Your task to perform on an android device: turn pop-ups on in chrome Image 0: 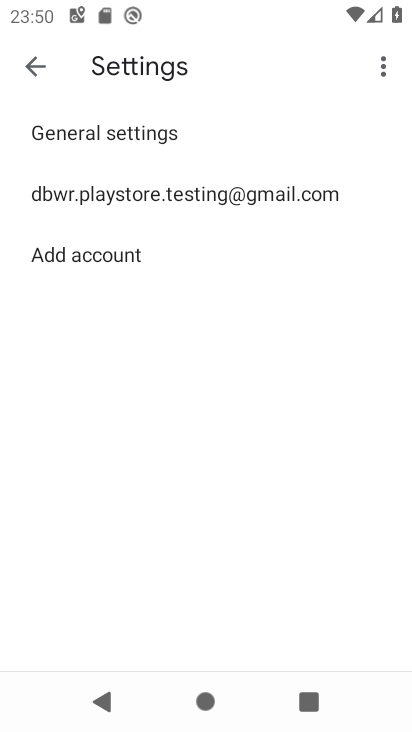
Step 0: press home button
Your task to perform on an android device: turn pop-ups on in chrome Image 1: 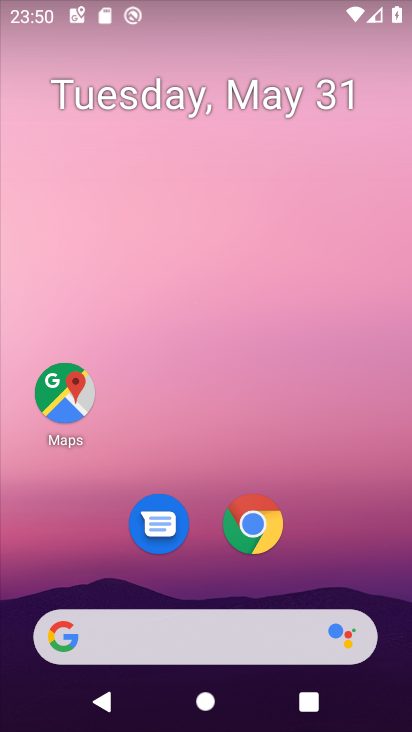
Step 1: click (246, 533)
Your task to perform on an android device: turn pop-ups on in chrome Image 2: 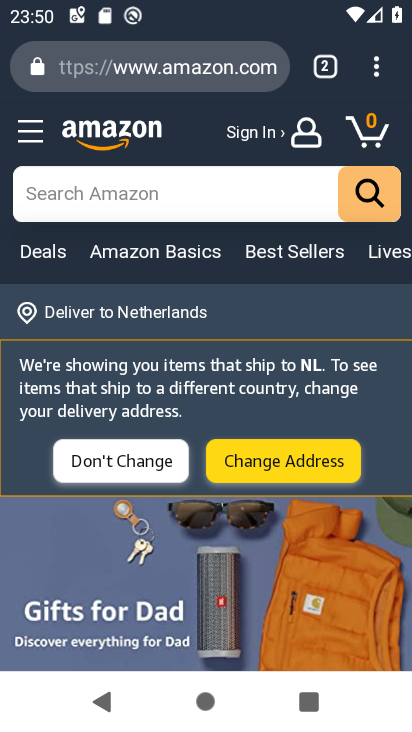
Step 2: click (372, 77)
Your task to perform on an android device: turn pop-ups on in chrome Image 3: 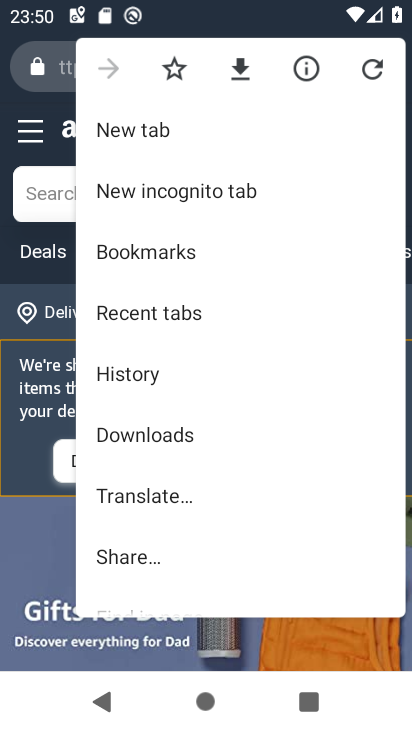
Step 3: drag from (234, 469) to (253, 190)
Your task to perform on an android device: turn pop-ups on in chrome Image 4: 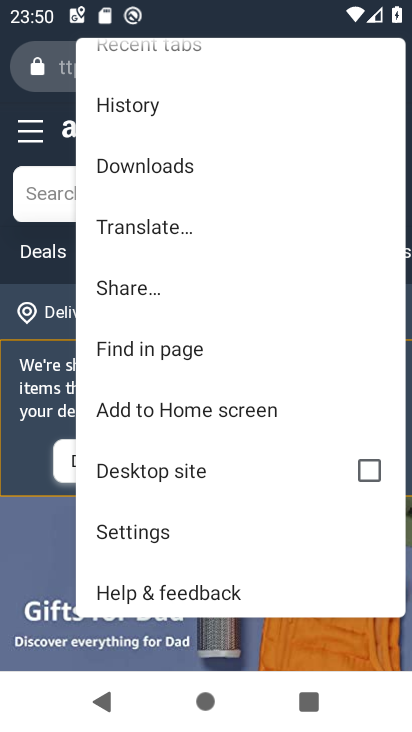
Step 4: click (179, 522)
Your task to perform on an android device: turn pop-ups on in chrome Image 5: 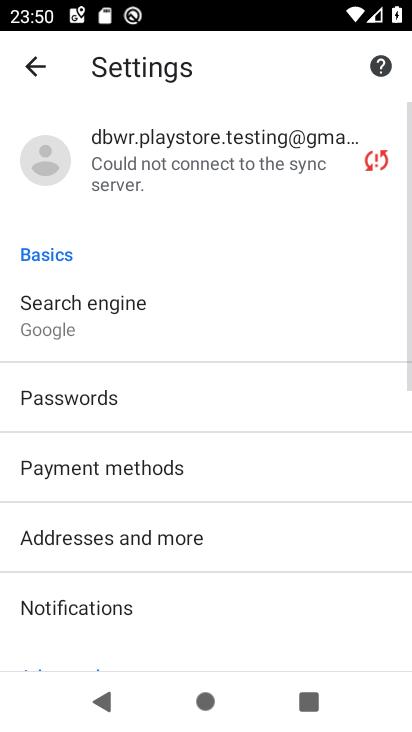
Step 5: drag from (224, 552) to (244, 219)
Your task to perform on an android device: turn pop-ups on in chrome Image 6: 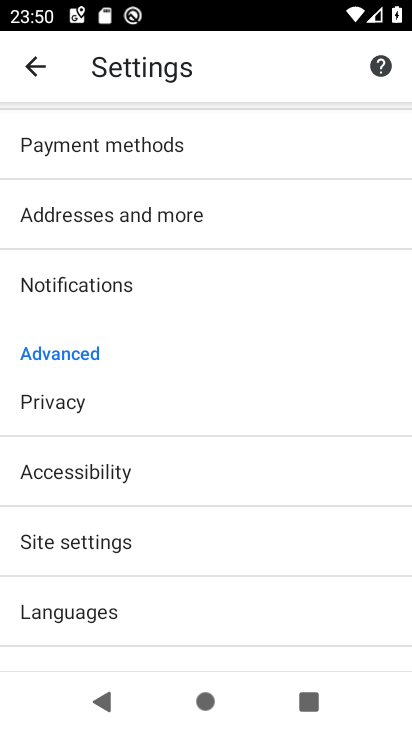
Step 6: click (144, 532)
Your task to perform on an android device: turn pop-ups on in chrome Image 7: 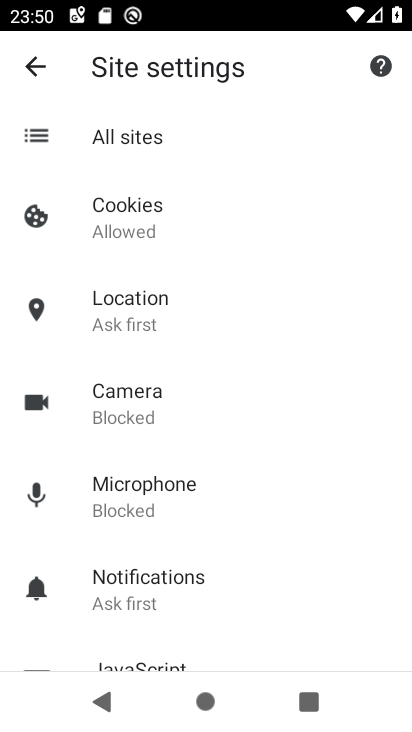
Step 7: drag from (240, 486) to (293, 245)
Your task to perform on an android device: turn pop-ups on in chrome Image 8: 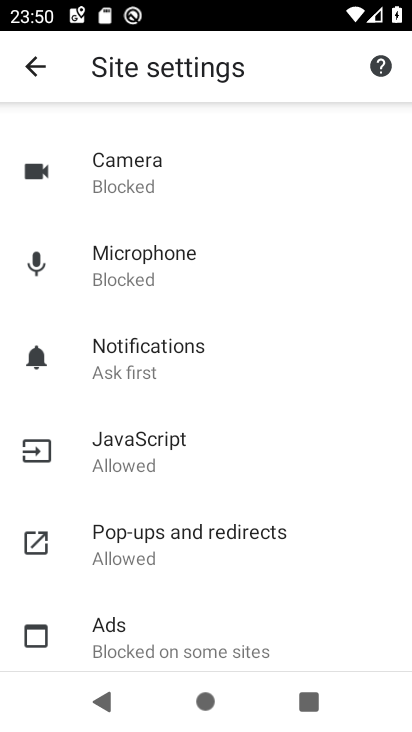
Step 8: click (219, 536)
Your task to perform on an android device: turn pop-ups on in chrome Image 9: 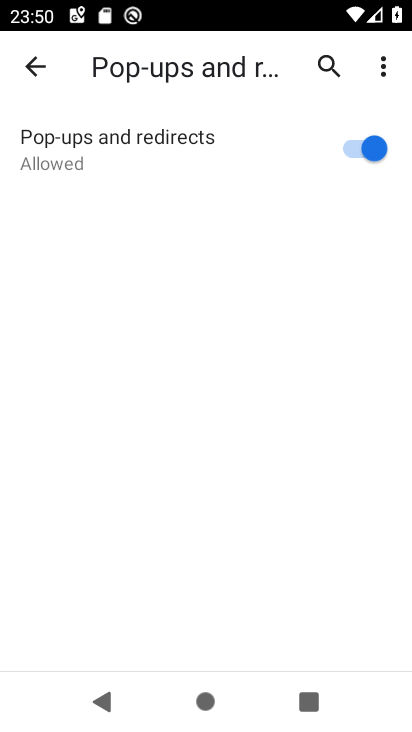
Step 9: task complete